Your task to perform on an android device: turn off airplane mode Image 0: 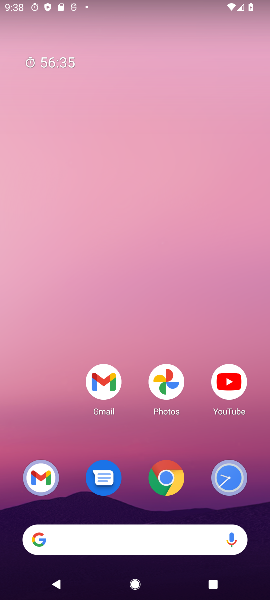
Step 0: press home button
Your task to perform on an android device: turn off airplane mode Image 1: 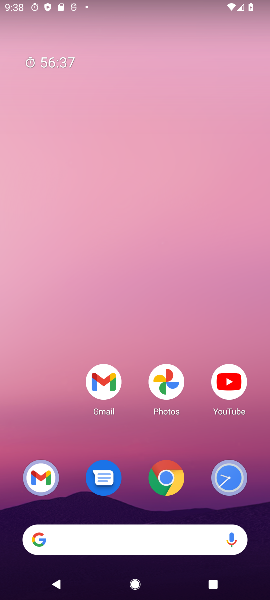
Step 1: task complete